Your task to perform on an android device: turn on translation in the chrome app Image 0: 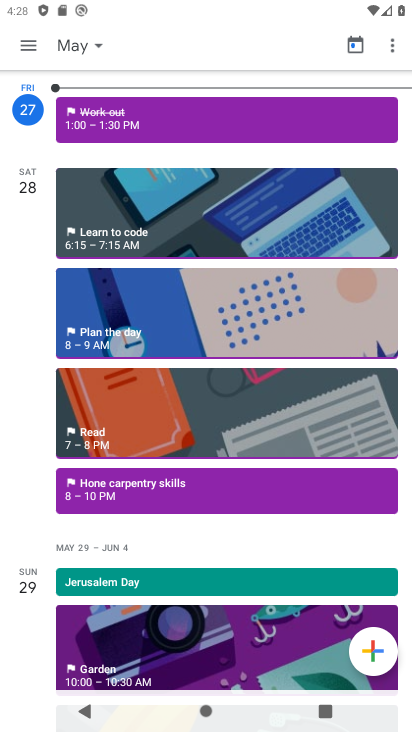
Step 0: press back button
Your task to perform on an android device: turn on translation in the chrome app Image 1: 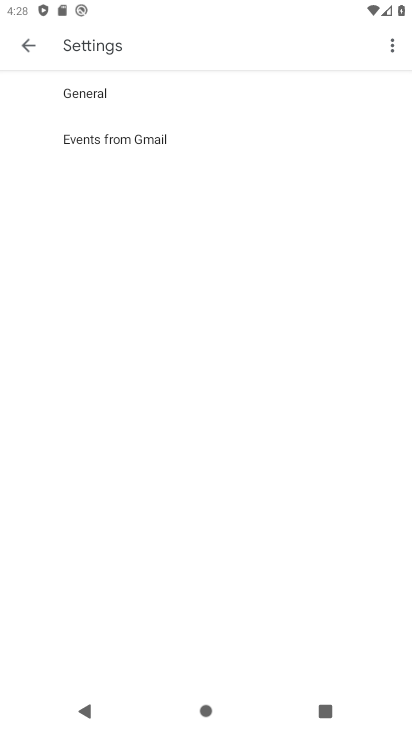
Step 1: press back button
Your task to perform on an android device: turn on translation in the chrome app Image 2: 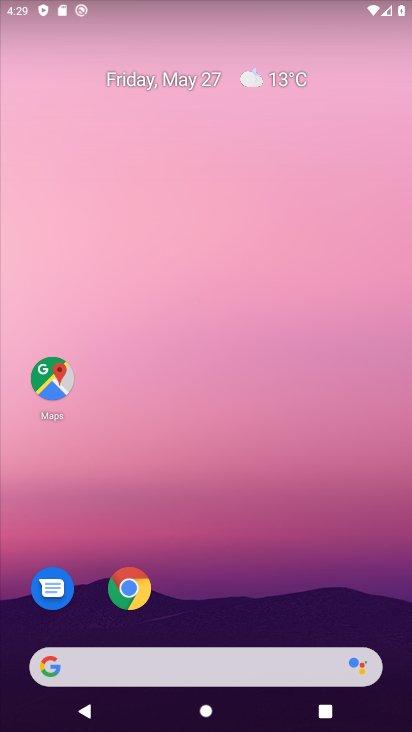
Step 2: click (126, 577)
Your task to perform on an android device: turn on translation in the chrome app Image 3: 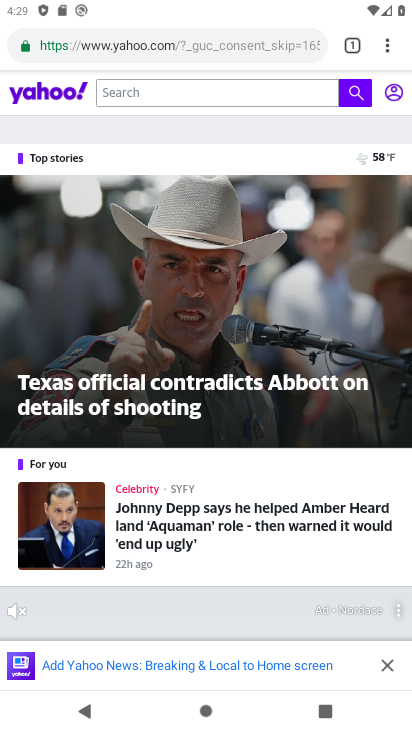
Step 3: drag from (387, 46) to (227, 550)
Your task to perform on an android device: turn on translation in the chrome app Image 4: 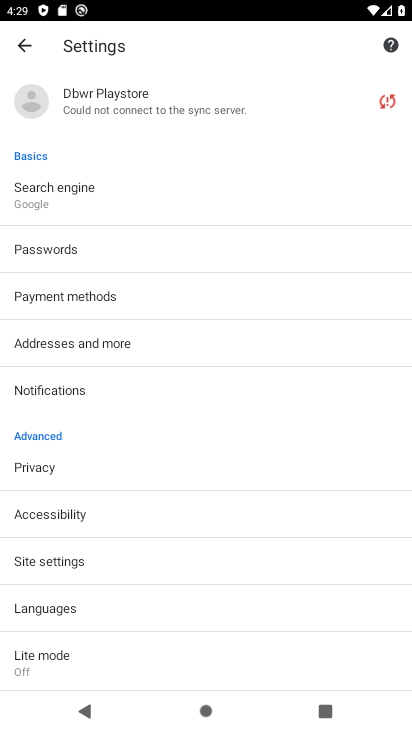
Step 4: click (67, 607)
Your task to perform on an android device: turn on translation in the chrome app Image 5: 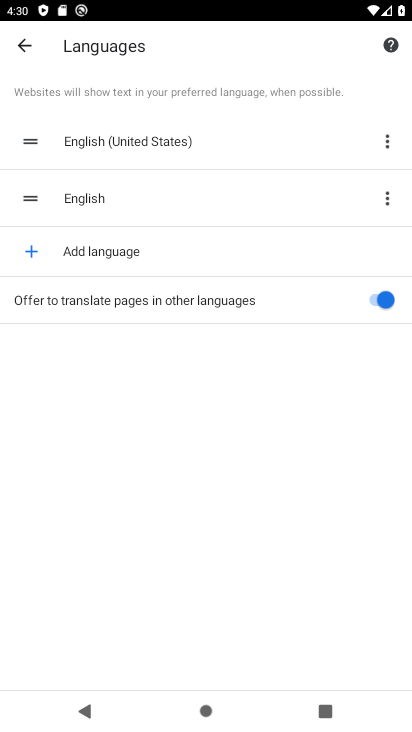
Step 5: press back button
Your task to perform on an android device: turn on translation in the chrome app Image 6: 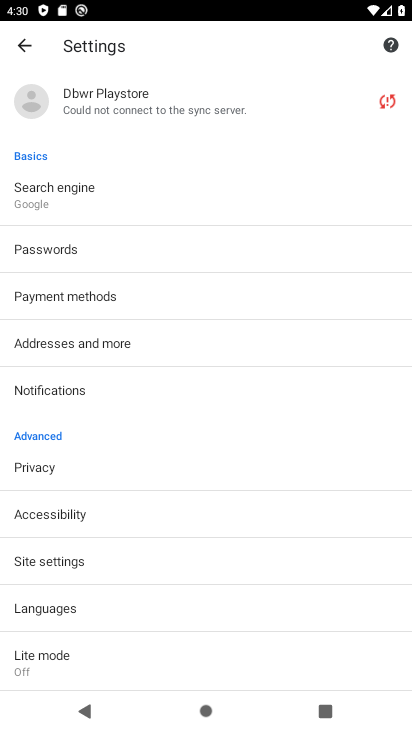
Step 6: click (60, 619)
Your task to perform on an android device: turn on translation in the chrome app Image 7: 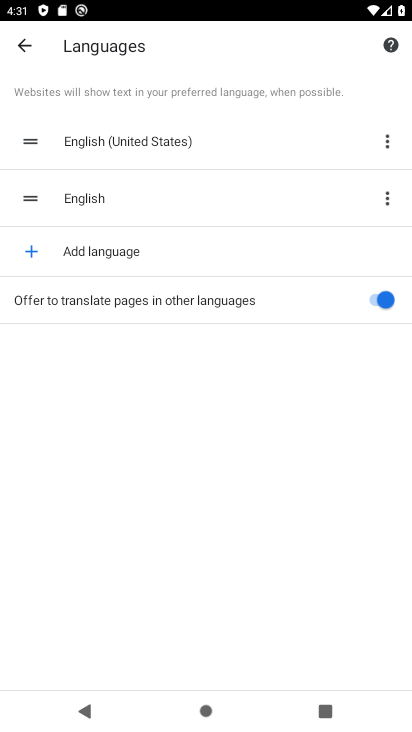
Step 7: task complete